Your task to perform on an android device: Check the weather Image 0: 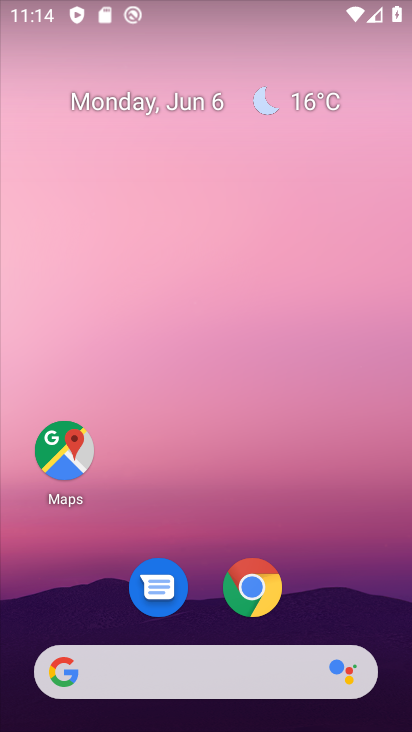
Step 0: drag from (342, 536) to (259, 42)
Your task to perform on an android device: Check the weather Image 1: 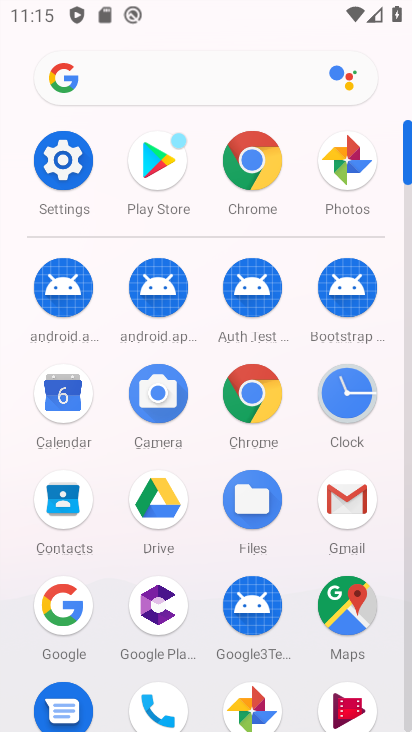
Step 1: drag from (13, 532) to (6, 188)
Your task to perform on an android device: Check the weather Image 2: 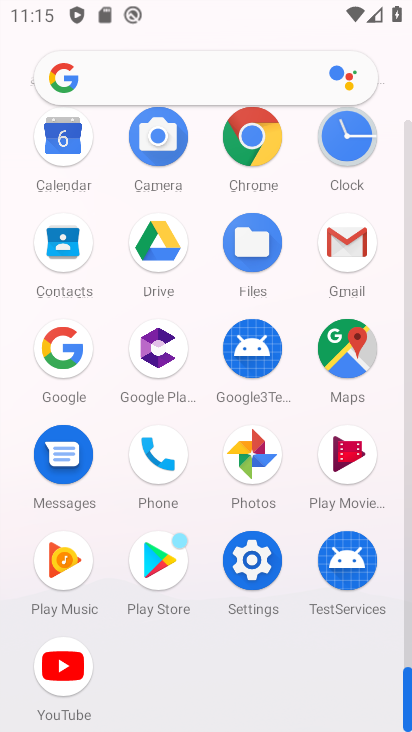
Step 2: click (250, 144)
Your task to perform on an android device: Check the weather Image 3: 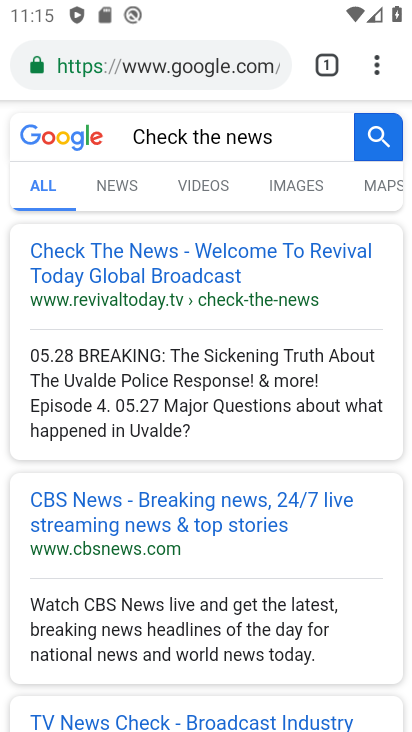
Step 3: click (209, 67)
Your task to perform on an android device: Check the weather Image 4: 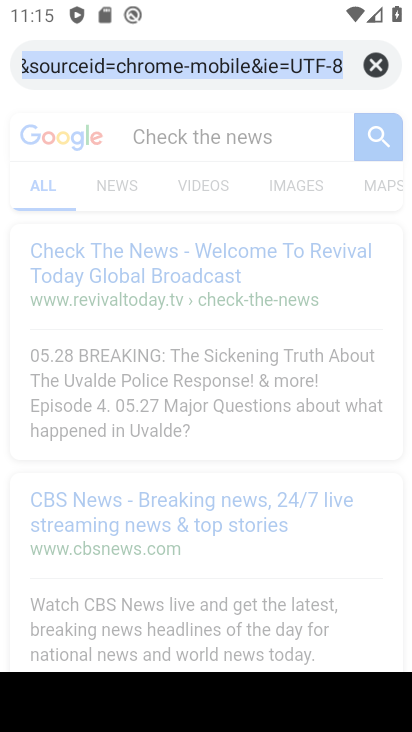
Step 4: click (374, 63)
Your task to perform on an android device: Check the weather Image 5: 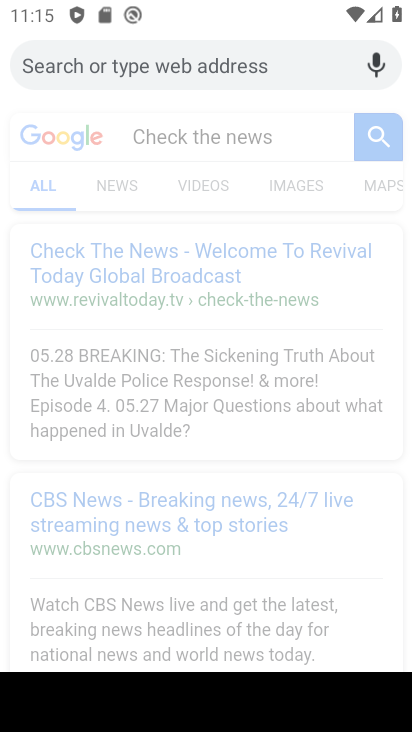
Step 5: type "Check the weather"
Your task to perform on an android device: Check the weather Image 6: 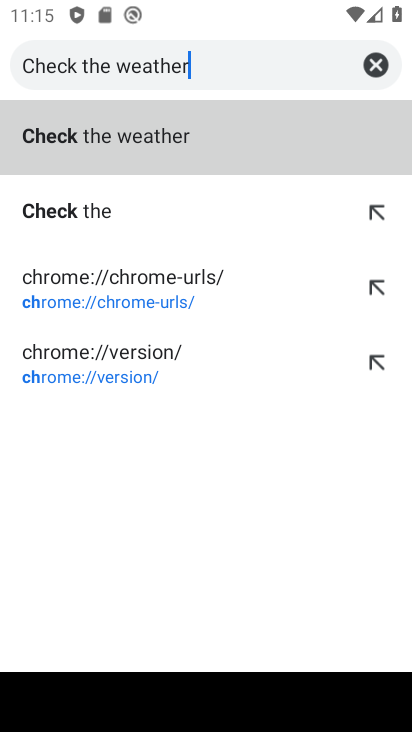
Step 6: type ""
Your task to perform on an android device: Check the weather Image 7: 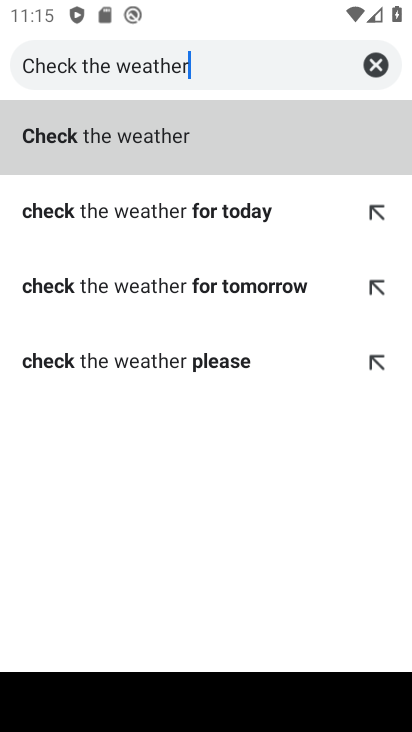
Step 7: click (180, 148)
Your task to perform on an android device: Check the weather Image 8: 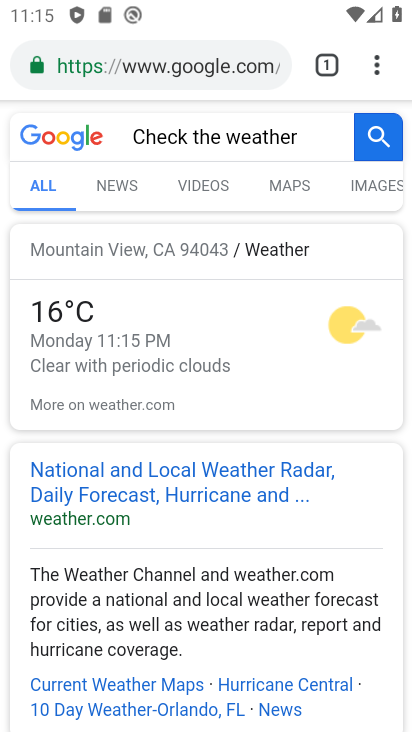
Step 8: task complete